Your task to perform on an android device: How much does a 2x4x8 board cost at Lowes? Image 0: 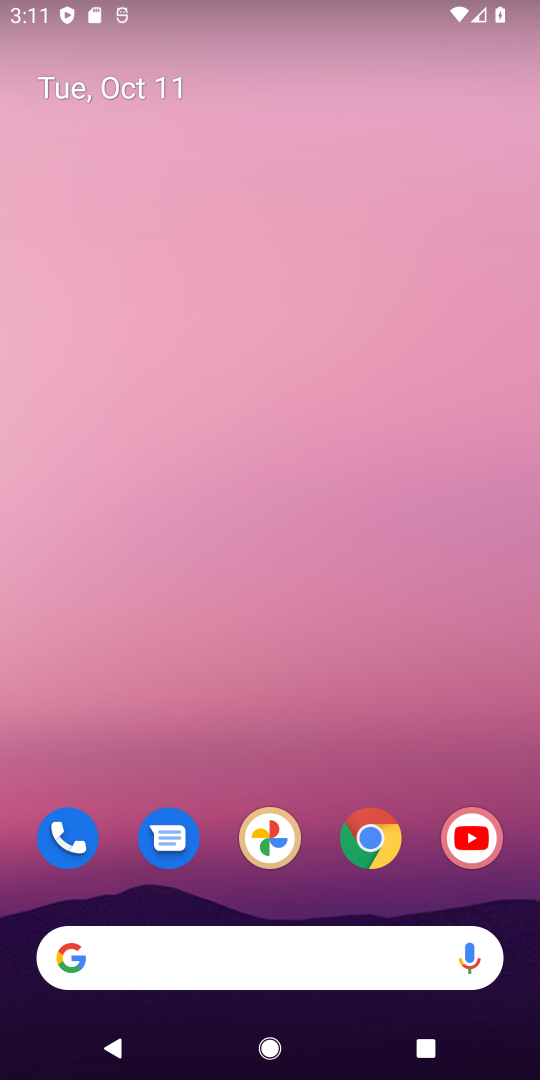
Step 0: click (272, 946)
Your task to perform on an android device: How much does a 2x4x8 board cost at Lowes? Image 1: 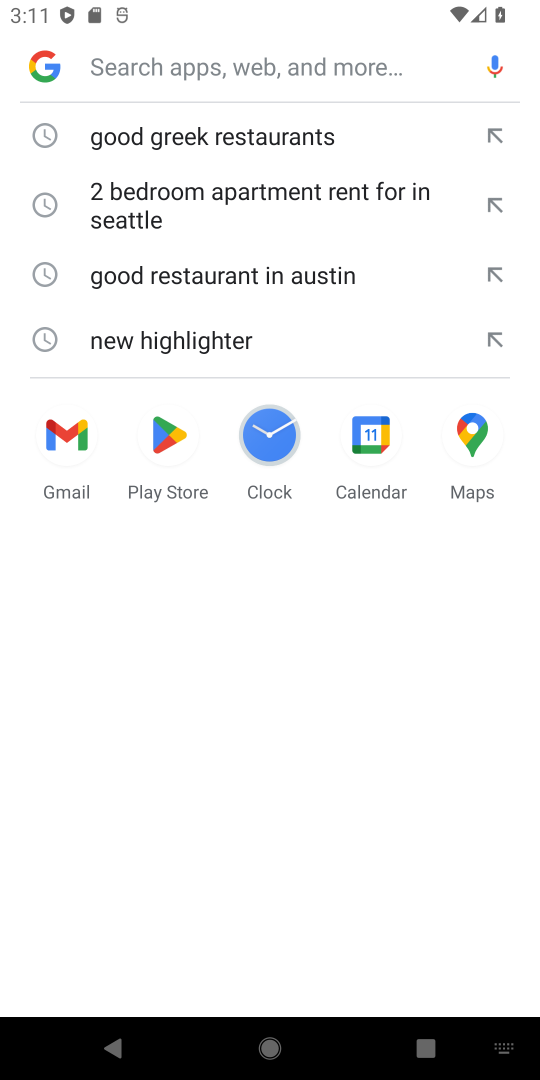
Step 1: type "2x4x8 board cost at Lowes"
Your task to perform on an android device: How much does a 2x4x8 board cost at Lowes? Image 2: 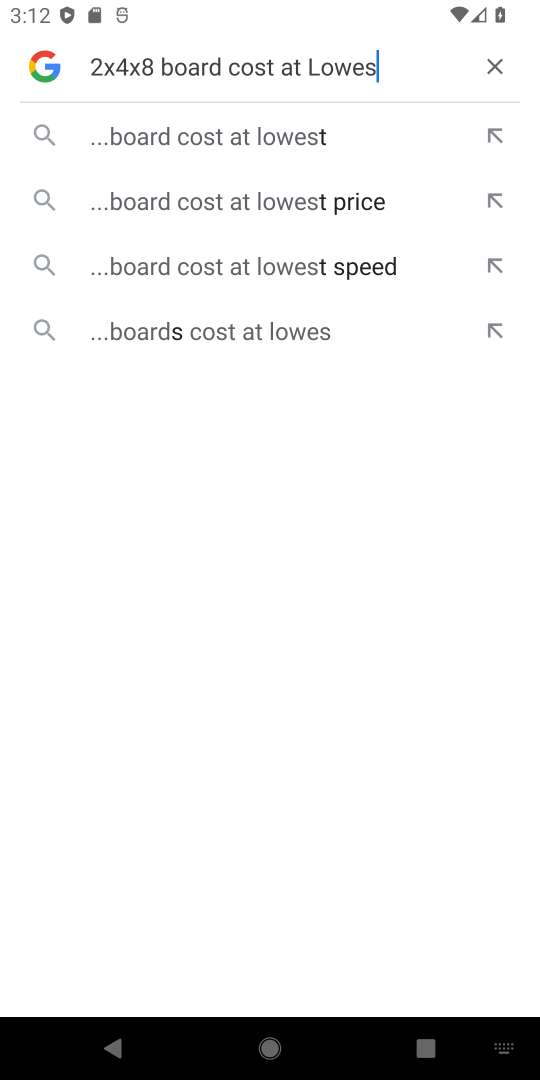
Step 2: click (275, 141)
Your task to perform on an android device: How much does a 2x4x8 board cost at Lowes? Image 3: 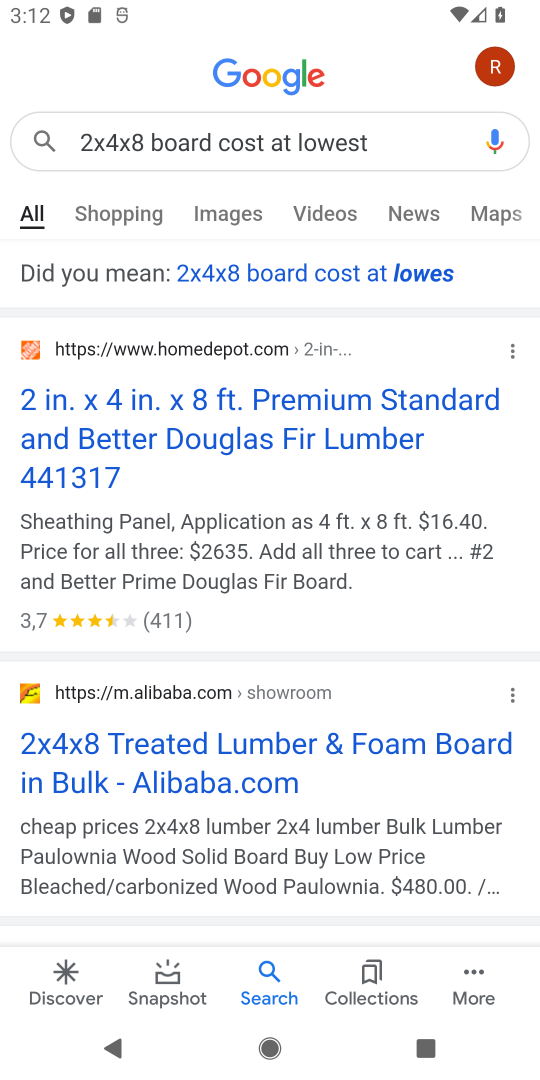
Step 3: click (201, 414)
Your task to perform on an android device: How much does a 2x4x8 board cost at Lowes? Image 4: 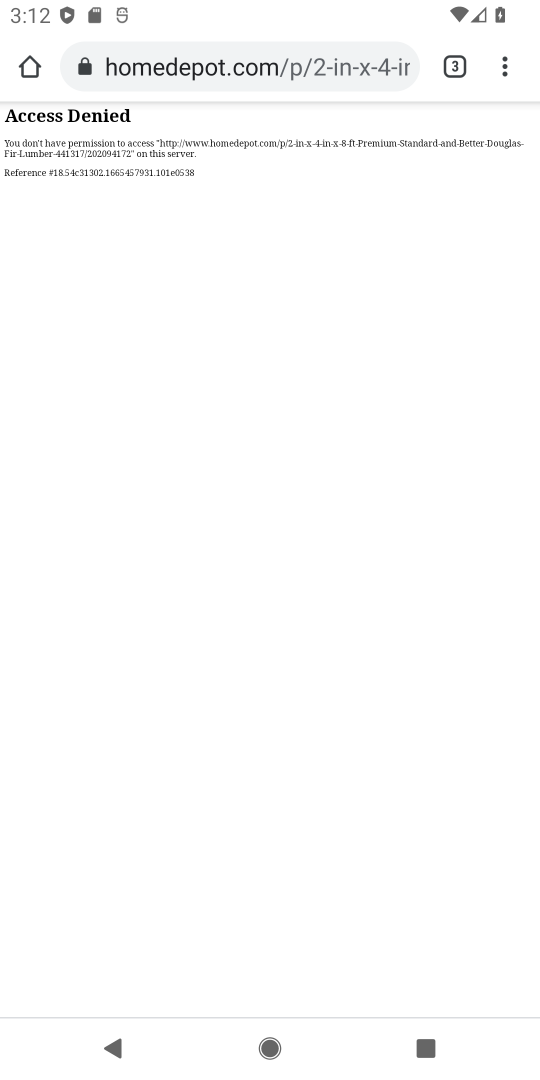
Step 4: press back button
Your task to perform on an android device: How much does a 2x4x8 board cost at Lowes? Image 5: 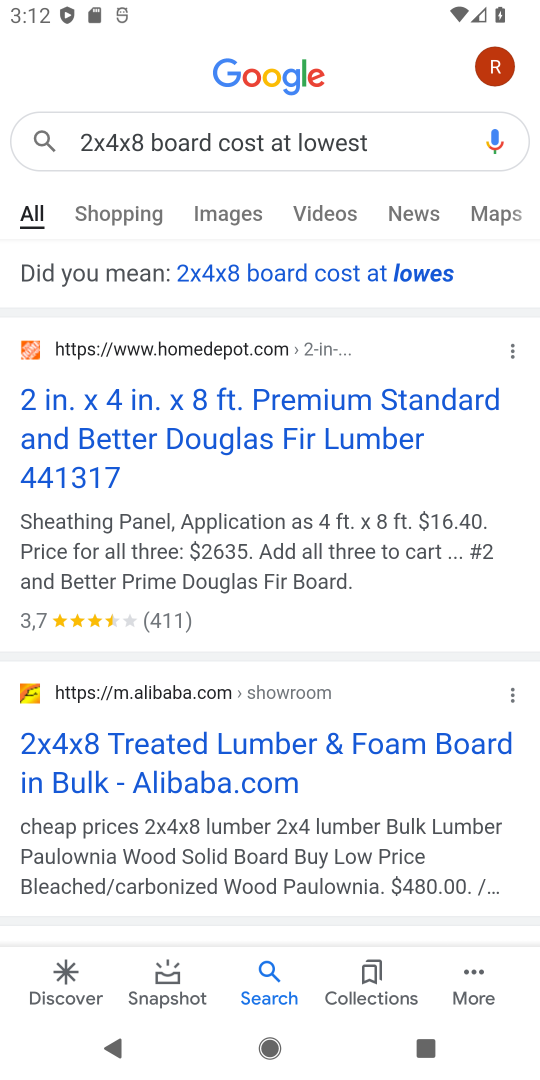
Step 5: click (249, 744)
Your task to perform on an android device: How much does a 2x4x8 board cost at Lowes? Image 6: 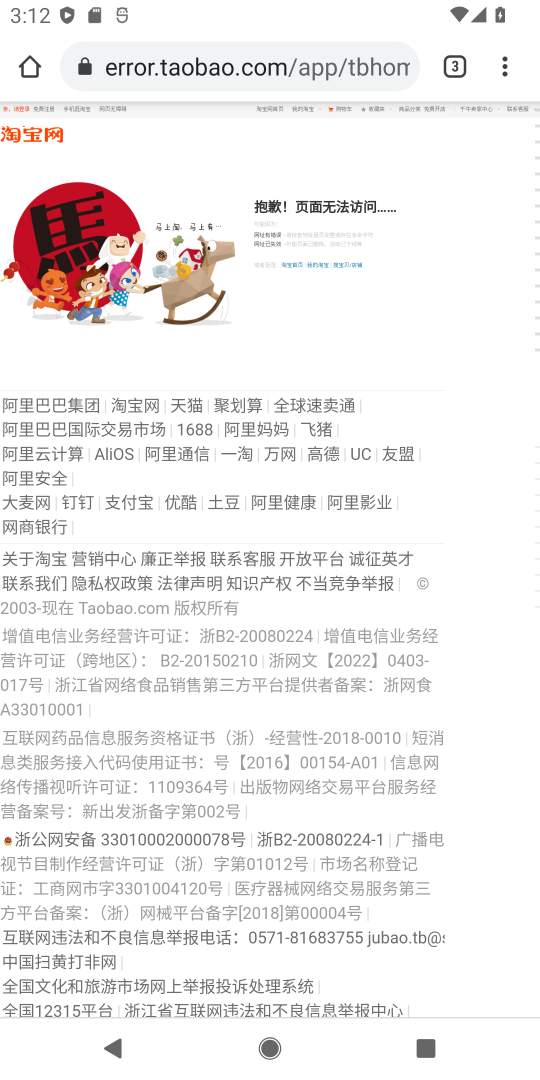
Step 6: task complete